Your task to perform on an android device: Go to wifi settings Image 0: 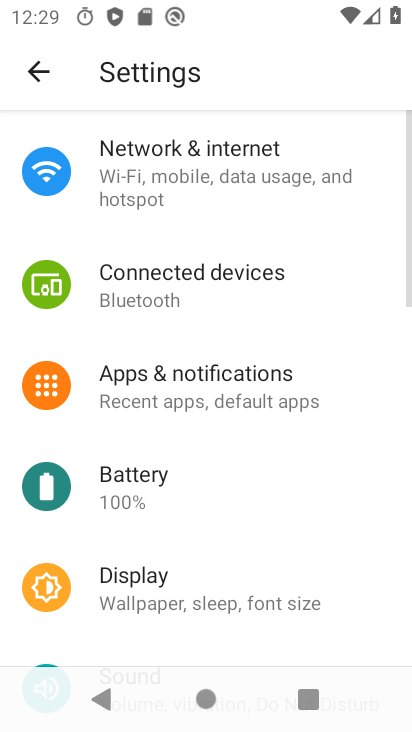
Step 0: press home button
Your task to perform on an android device: Go to wifi settings Image 1: 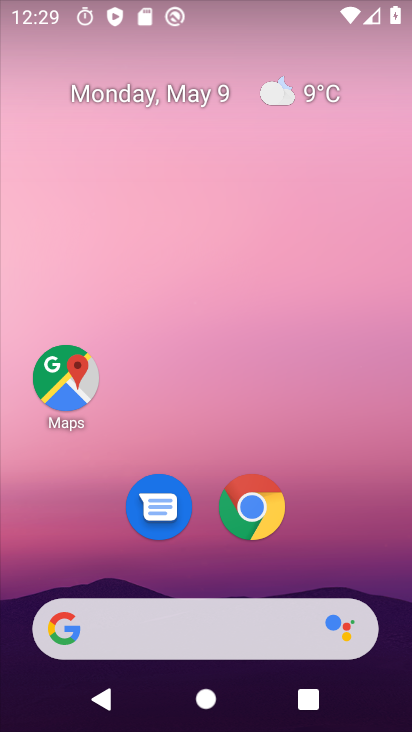
Step 1: drag from (229, 726) to (226, 290)
Your task to perform on an android device: Go to wifi settings Image 2: 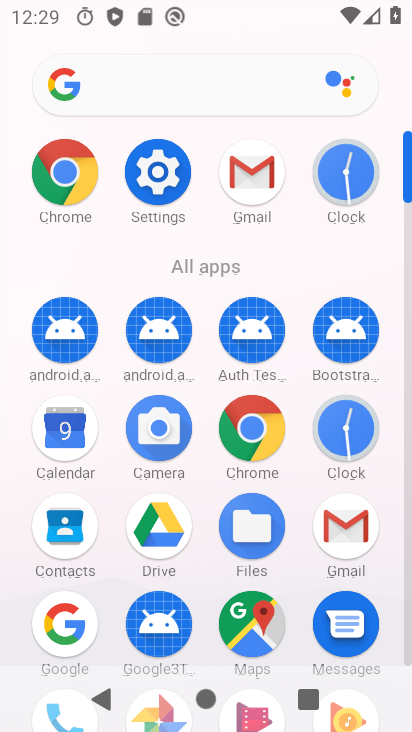
Step 2: click (152, 160)
Your task to perform on an android device: Go to wifi settings Image 3: 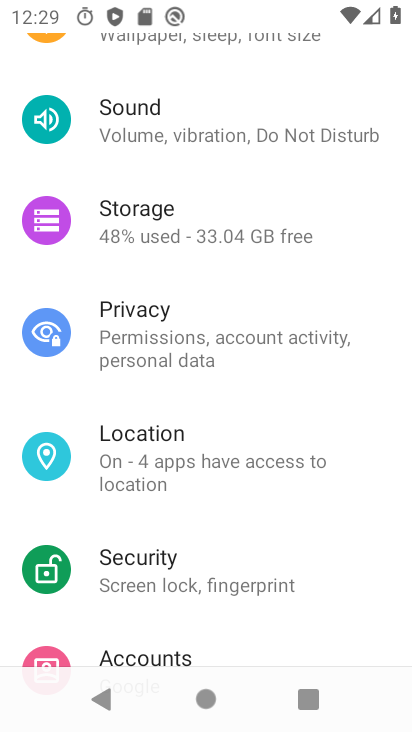
Step 3: drag from (229, 88) to (247, 523)
Your task to perform on an android device: Go to wifi settings Image 4: 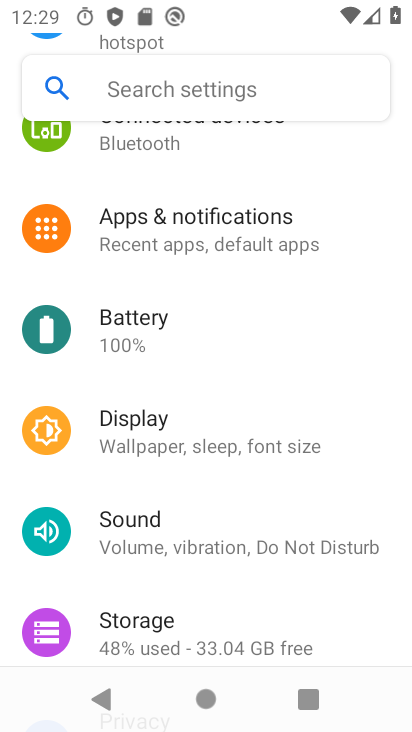
Step 4: drag from (236, 171) to (248, 556)
Your task to perform on an android device: Go to wifi settings Image 5: 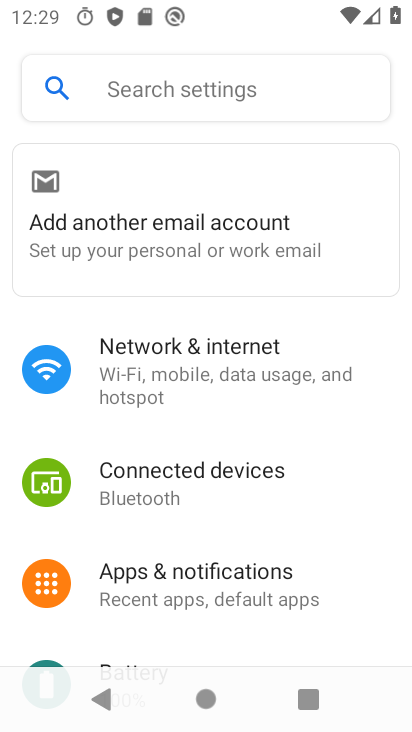
Step 5: click (183, 360)
Your task to perform on an android device: Go to wifi settings Image 6: 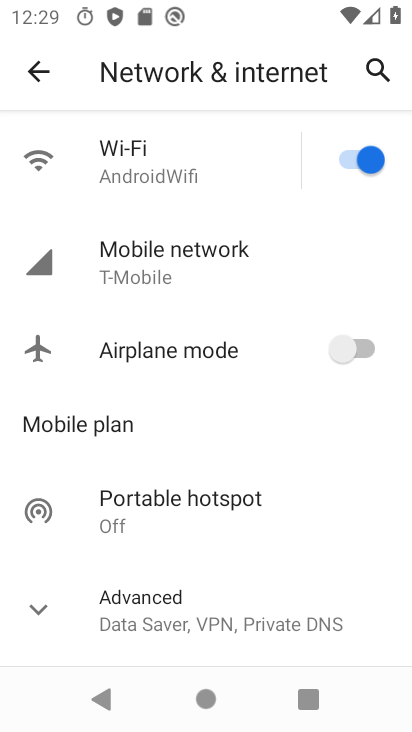
Step 6: click (135, 146)
Your task to perform on an android device: Go to wifi settings Image 7: 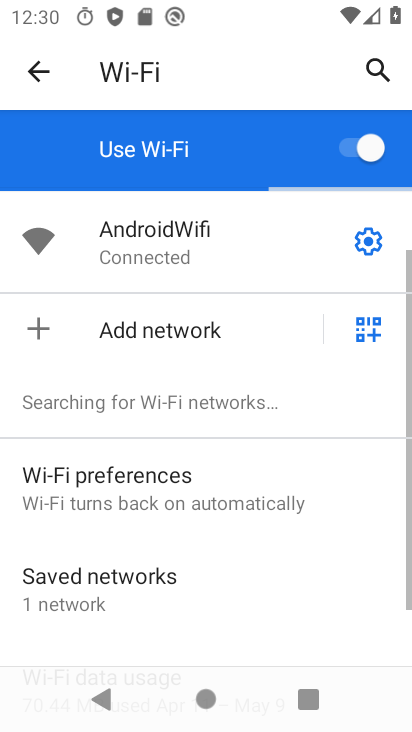
Step 7: task complete